Your task to perform on an android device: delete location history Image 0: 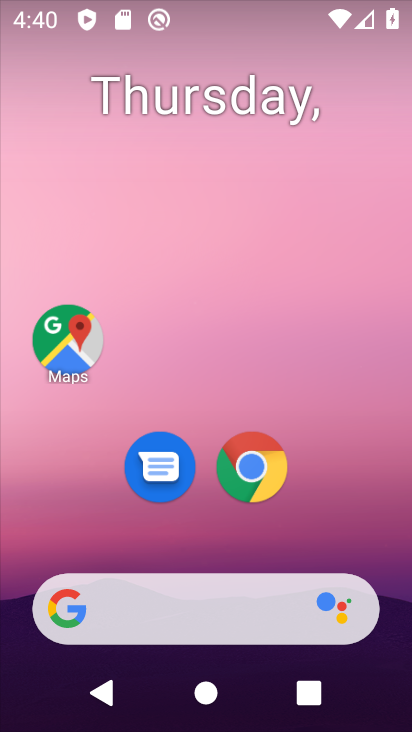
Step 0: drag from (377, 545) to (283, 97)
Your task to perform on an android device: delete location history Image 1: 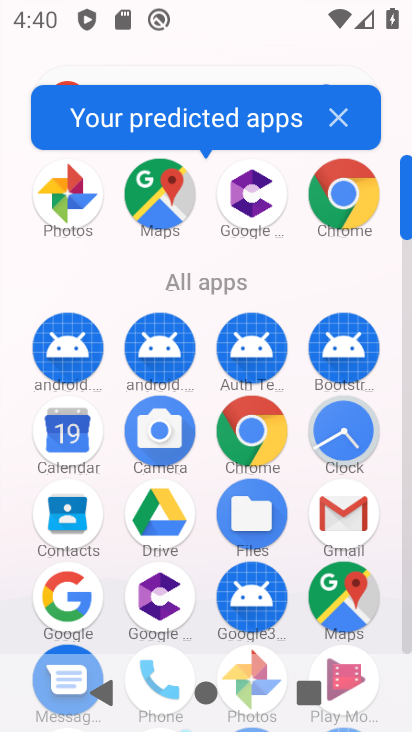
Step 1: click (407, 647)
Your task to perform on an android device: delete location history Image 2: 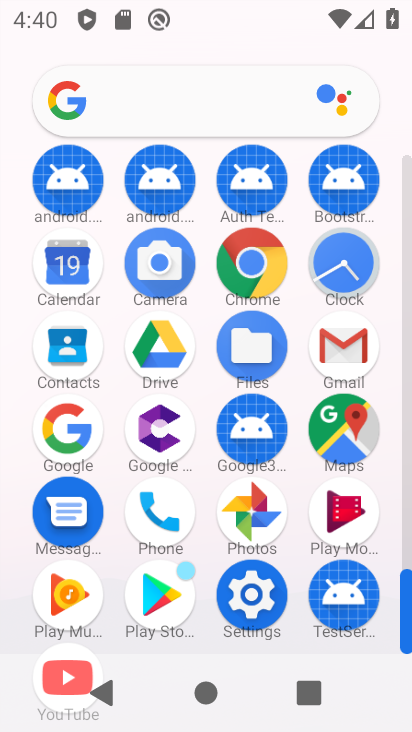
Step 2: click (330, 404)
Your task to perform on an android device: delete location history Image 3: 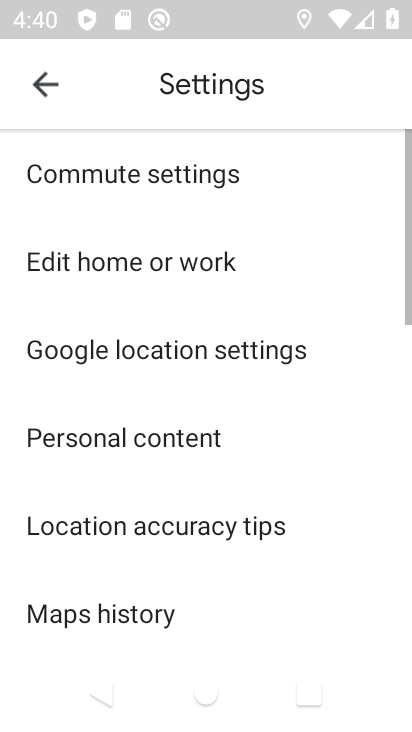
Step 3: click (33, 93)
Your task to perform on an android device: delete location history Image 4: 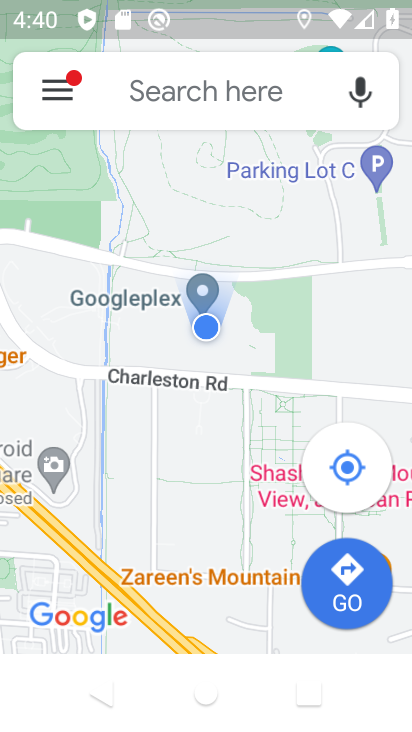
Step 4: click (33, 93)
Your task to perform on an android device: delete location history Image 5: 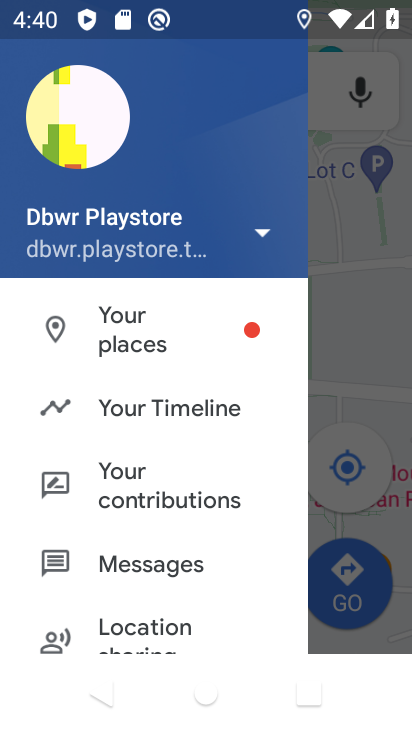
Step 5: click (198, 410)
Your task to perform on an android device: delete location history Image 6: 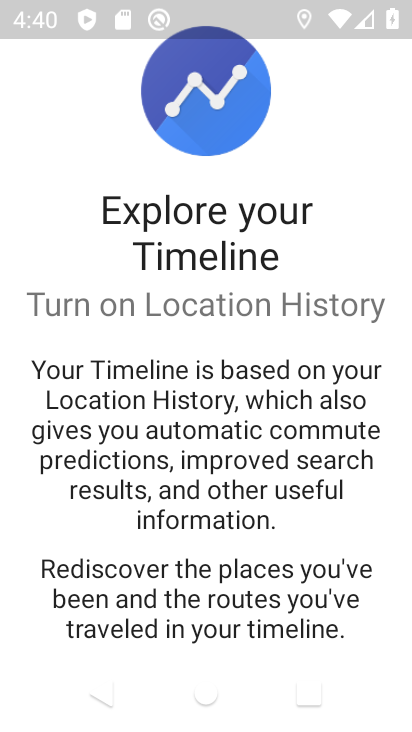
Step 6: drag from (271, 634) to (208, 194)
Your task to perform on an android device: delete location history Image 7: 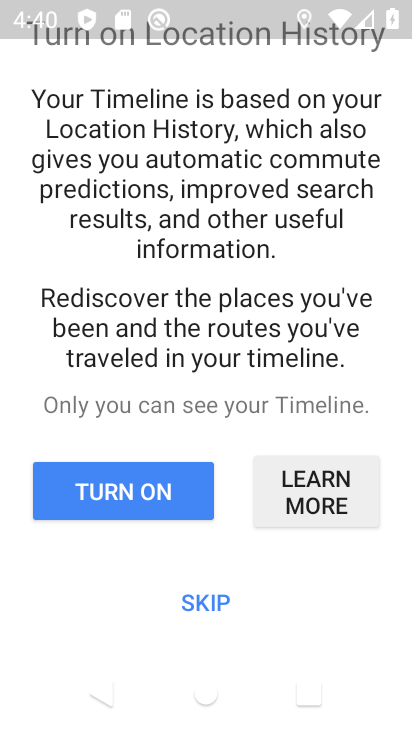
Step 7: click (215, 603)
Your task to perform on an android device: delete location history Image 8: 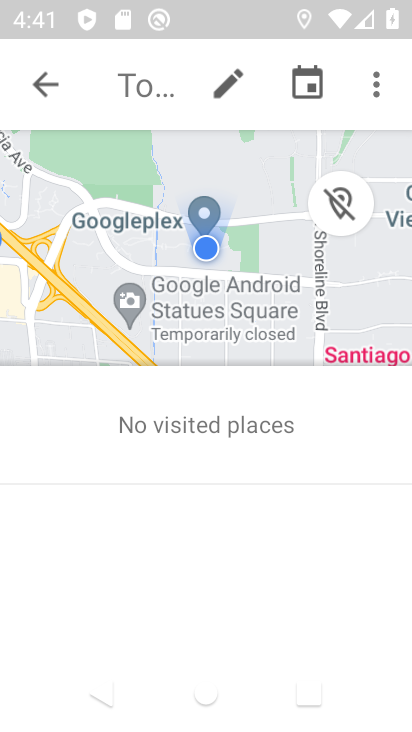
Step 8: click (360, 103)
Your task to perform on an android device: delete location history Image 9: 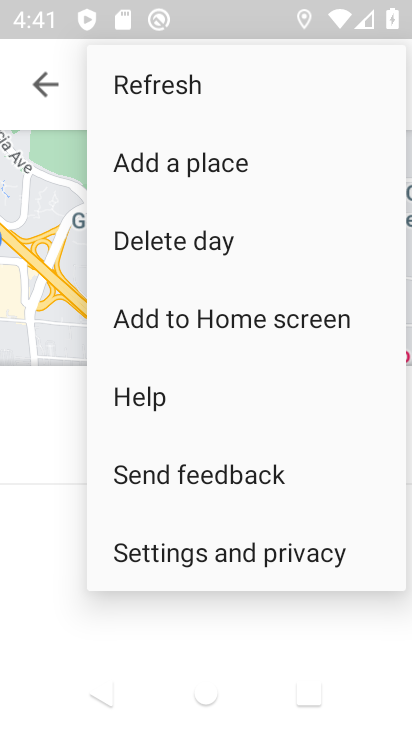
Step 9: click (319, 547)
Your task to perform on an android device: delete location history Image 10: 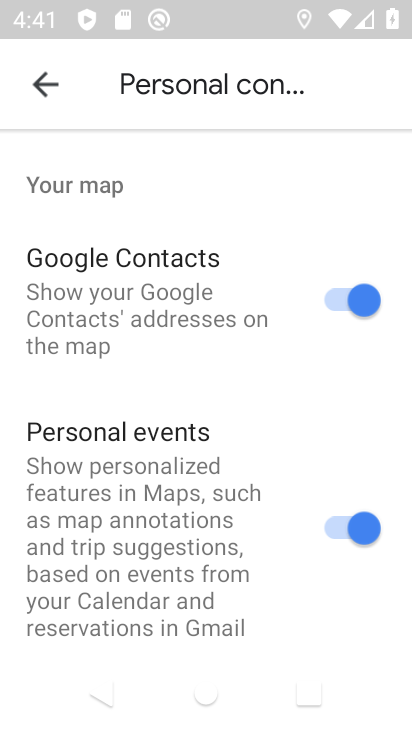
Step 10: drag from (262, 585) to (168, 2)
Your task to perform on an android device: delete location history Image 11: 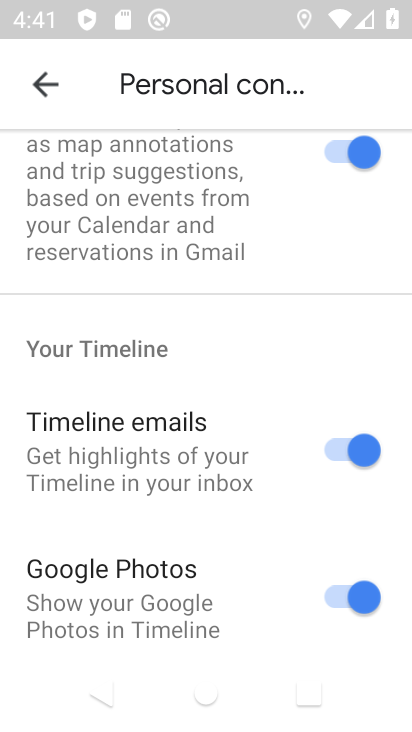
Step 11: drag from (232, 545) to (158, 218)
Your task to perform on an android device: delete location history Image 12: 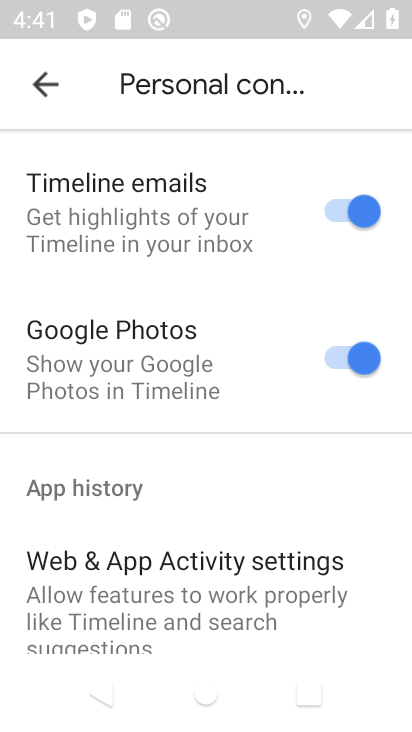
Step 12: drag from (202, 627) to (167, 137)
Your task to perform on an android device: delete location history Image 13: 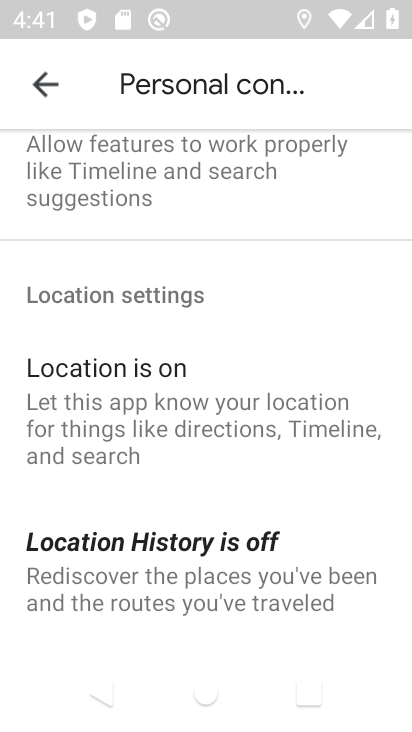
Step 13: drag from (262, 547) to (245, 149)
Your task to perform on an android device: delete location history Image 14: 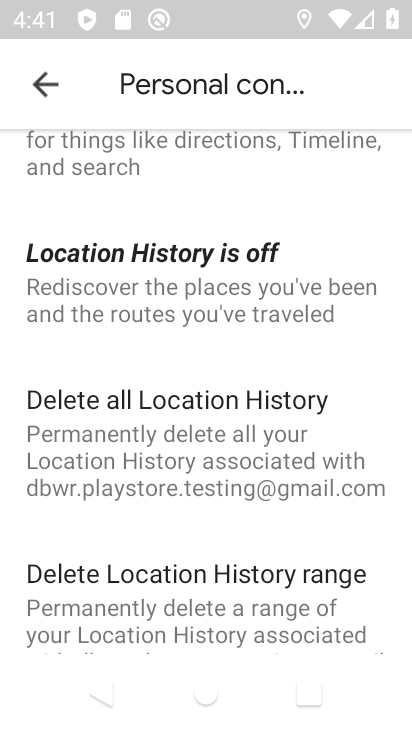
Step 14: click (290, 438)
Your task to perform on an android device: delete location history Image 15: 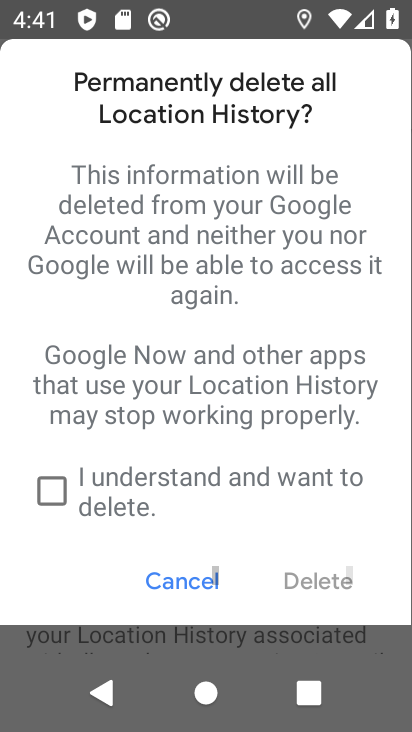
Step 15: click (292, 480)
Your task to perform on an android device: delete location history Image 16: 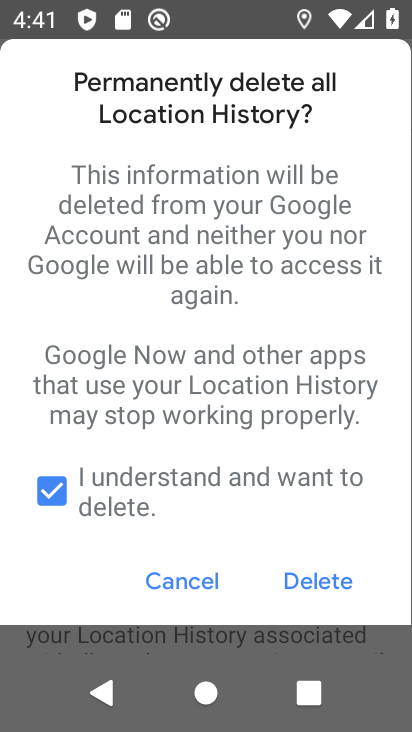
Step 16: click (336, 583)
Your task to perform on an android device: delete location history Image 17: 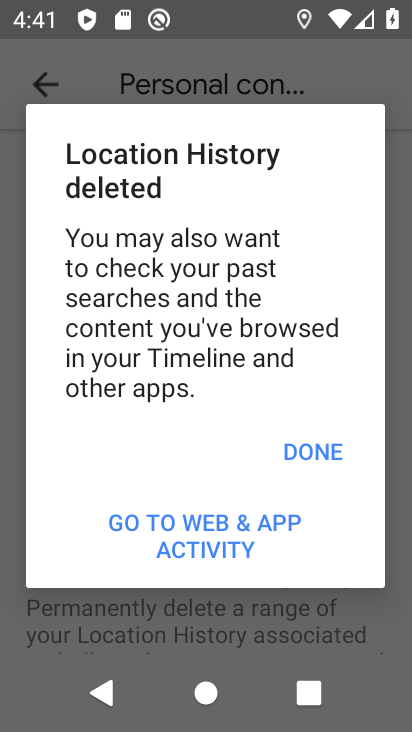
Step 17: click (318, 442)
Your task to perform on an android device: delete location history Image 18: 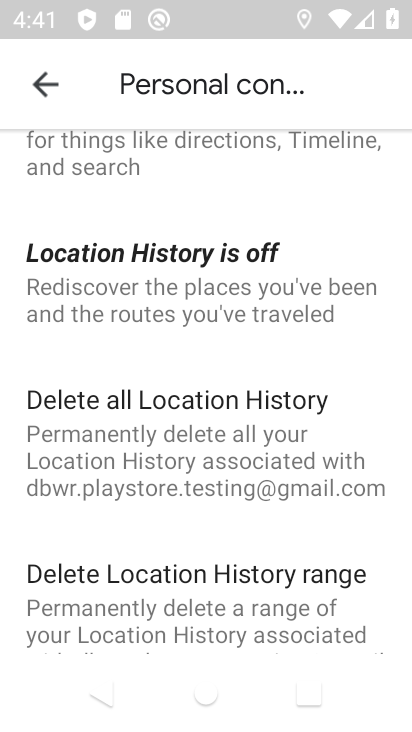
Step 18: task complete